Your task to perform on an android device: open a bookmark in the chrome app Image 0: 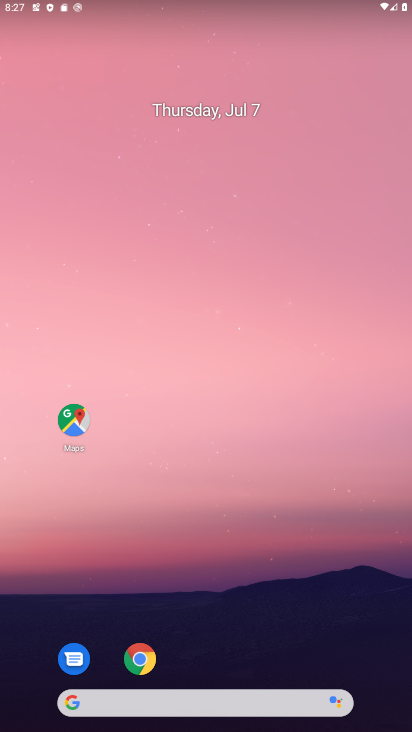
Step 0: drag from (211, 656) to (169, 65)
Your task to perform on an android device: open a bookmark in the chrome app Image 1: 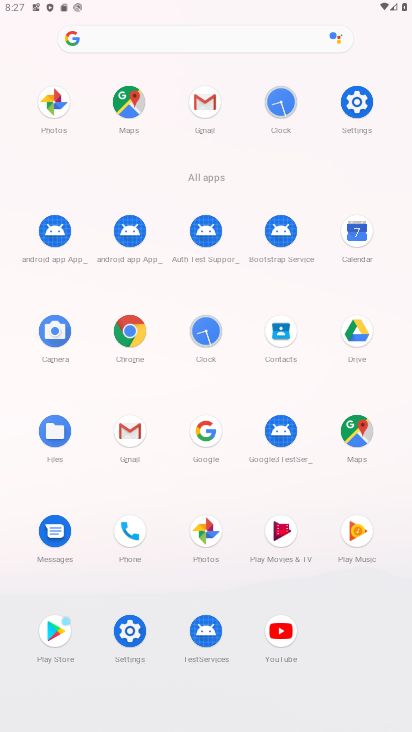
Step 1: click (142, 340)
Your task to perform on an android device: open a bookmark in the chrome app Image 2: 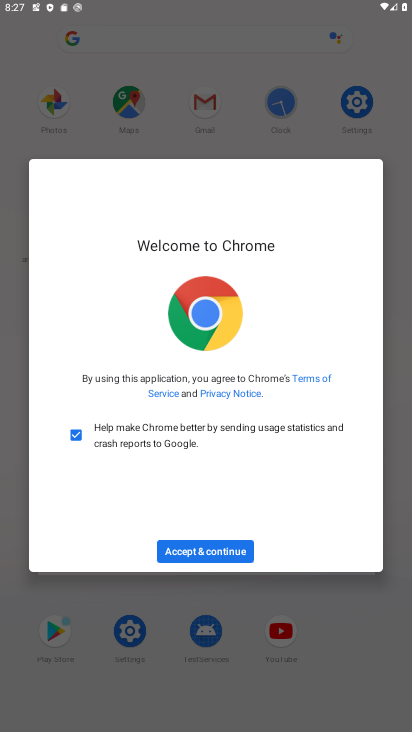
Step 2: click (177, 547)
Your task to perform on an android device: open a bookmark in the chrome app Image 3: 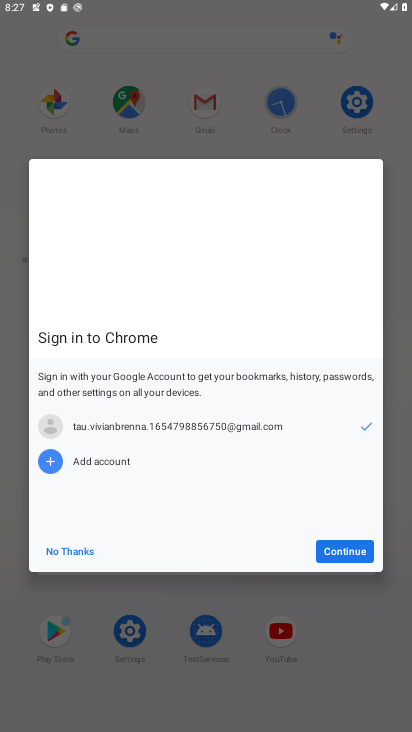
Step 3: click (357, 551)
Your task to perform on an android device: open a bookmark in the chrome app Image 4: 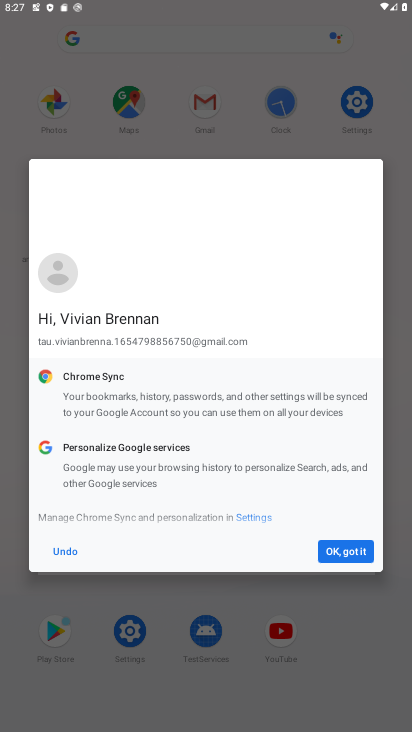
Step 4: click (357, 551)
Your task to perform on an android device: open a bookmark in the chrome app Image 5: 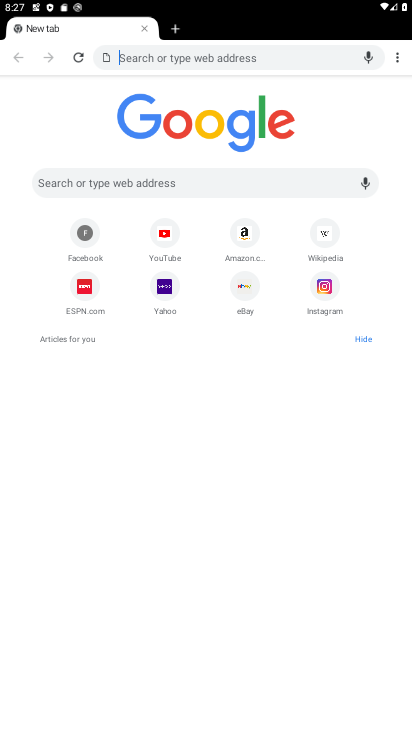
Step 5: click (250, 239)
Your task to perform on an android device: open a bookmark in the chrome app Image 6: 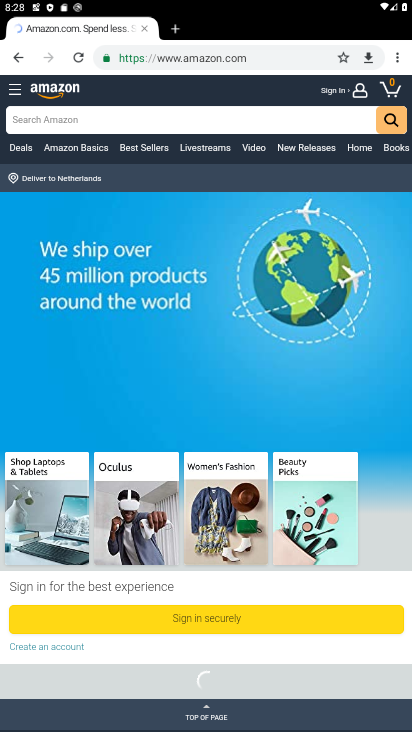
Step 6: task complete